Your task to perform on an android device: Go to Amazon Image 0: 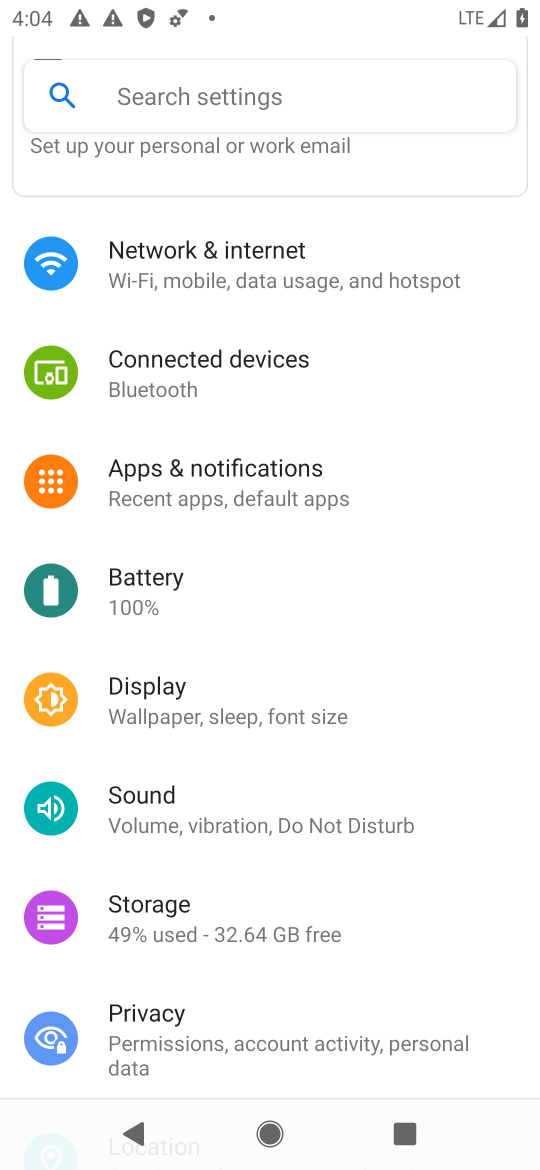
Step 0: press home button
Your task to perform on an android device: Go to Amazon Image 1: 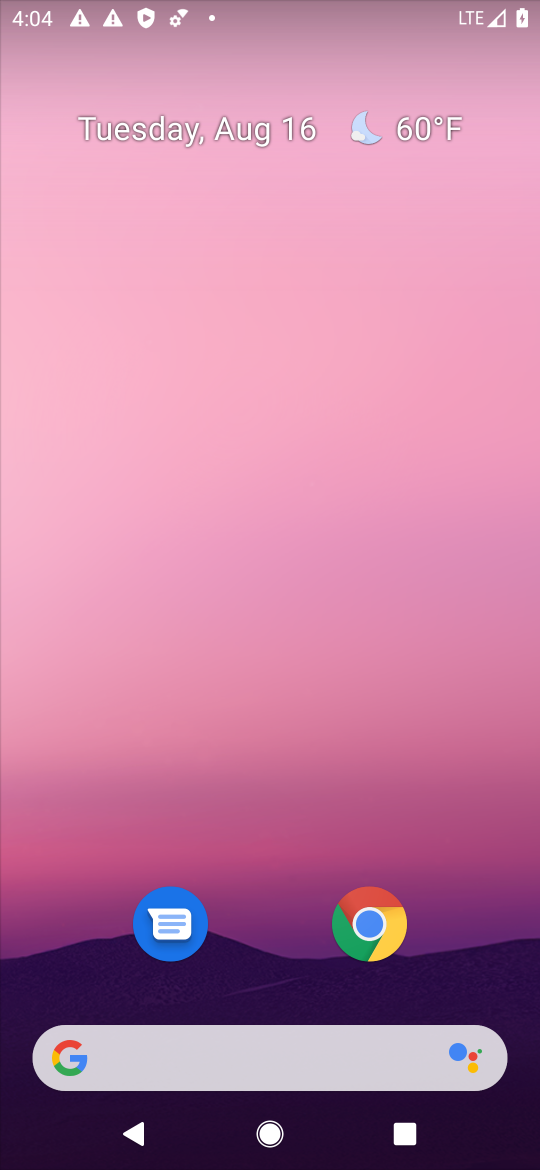
Step 1: click (364, 940)
Your task to perform on an android device: Go to Amazon Image 2: 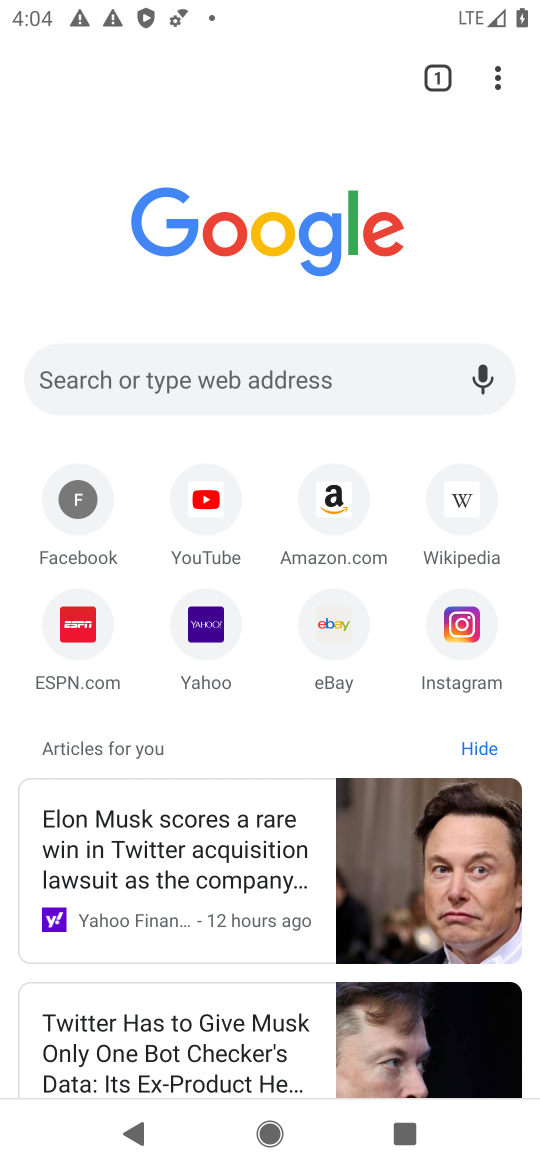
Step 2: click (348, 514)
Your task to perform on an android device: Go to Amazon Image 3: 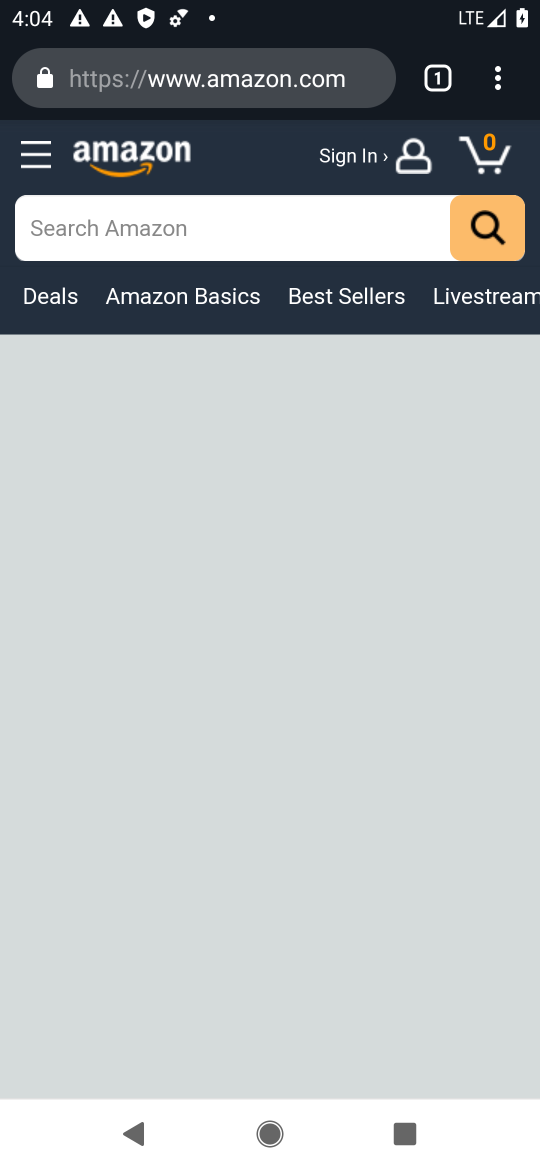
Step 3: task complete